Your task to perform on an android device: turn on priority inbox in the gmail app Image 0: 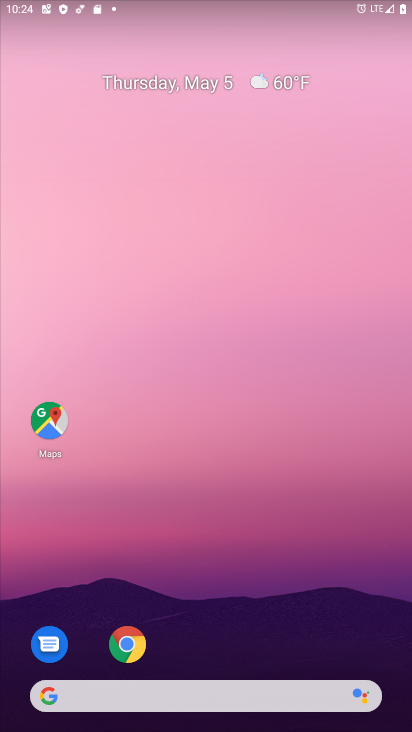
Step 0: drag from (232, 388) to (236, 122)
Your task to perform on an android device: turn on priority inbox in the gmail app Image 1: 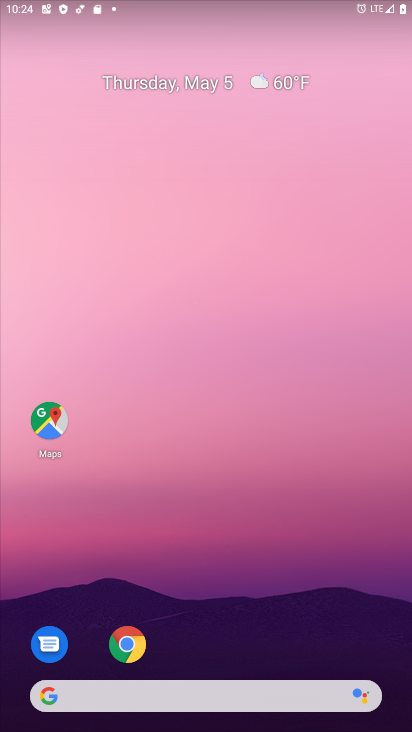
Step 1: drag from (248, 642) to (292, 65)
Your task to perform on an android device: turn on priority inbox in the gmail app Image 2: 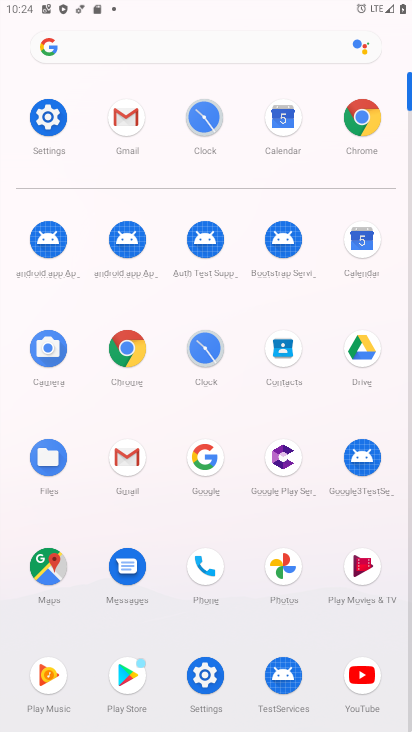
Step 2: click (129, 468)
Your task to perform on an android device: turn on priority inbox in the gmail app Image 3: 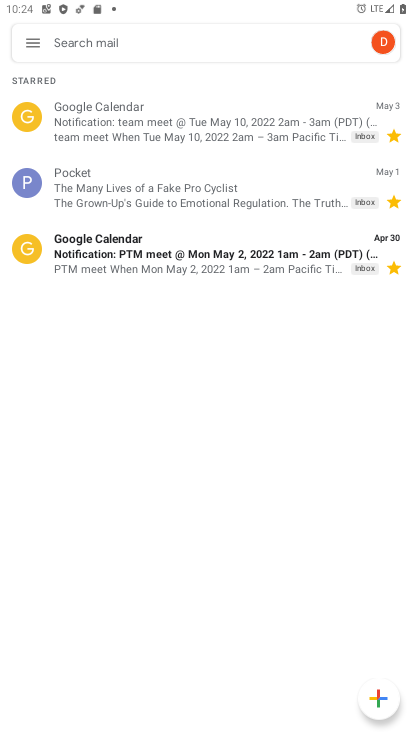
Step 3: click (33, 39)
Your task to perform on an android device: turn on priority inbox in the gmail app Image 4: 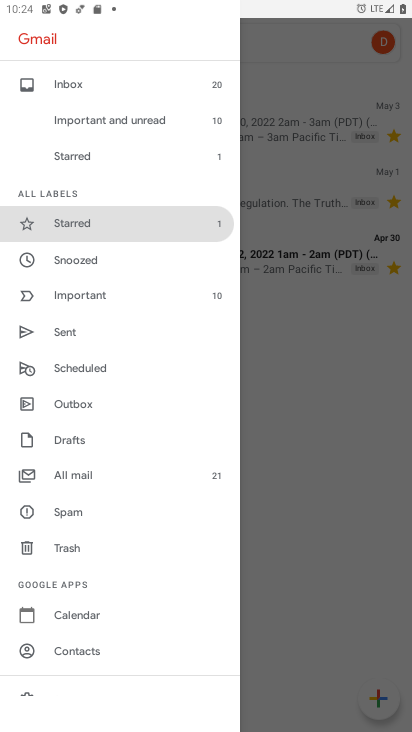
Step 4: drag from (100, 674) to (99, 330)
Your task to perform on an android device: turn on priority inbox in the gmail app Image 5: 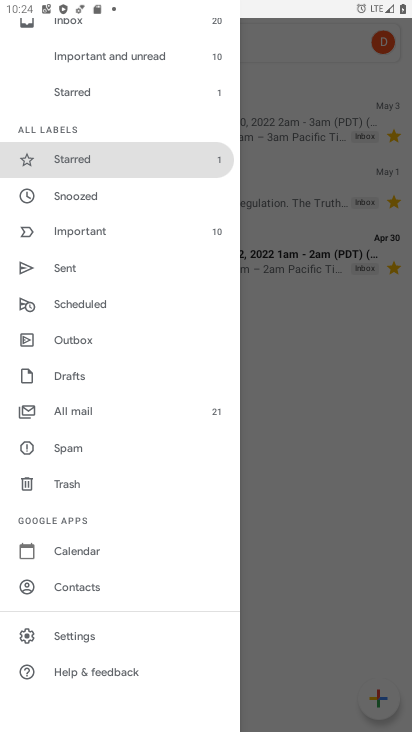
Step 5: click (68, 638)
Your task to perform on an android device: turn on priority inbox in the gmail app Image 6: 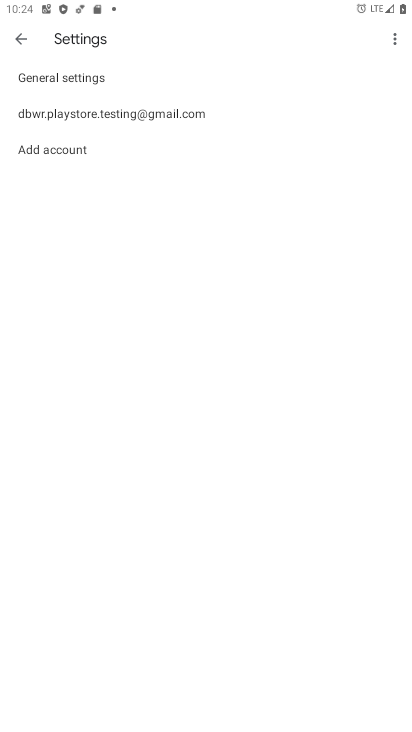
Step 6: click (138, 114)
Your task to perform on an android device: turn on priority inbox in the gmail app Image 7: 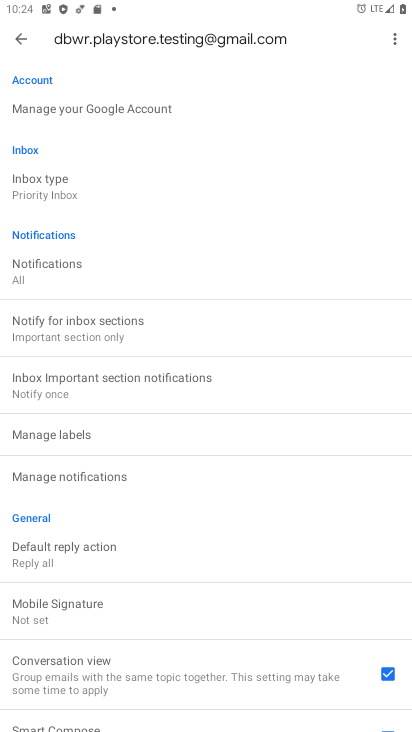
Step 7: click (72, 183)
Your task to perform on an android device: turn on priority inbox in the gmail app Image 8: 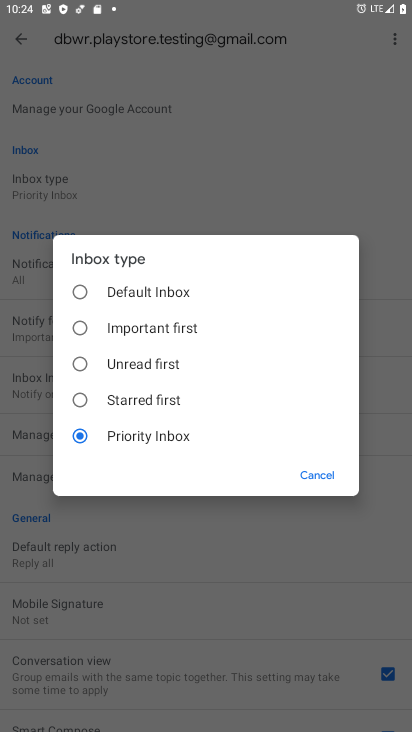
Step 8: task complete